Your task to perform on an android device: Search for pizza restaurants on Maps Image 0: 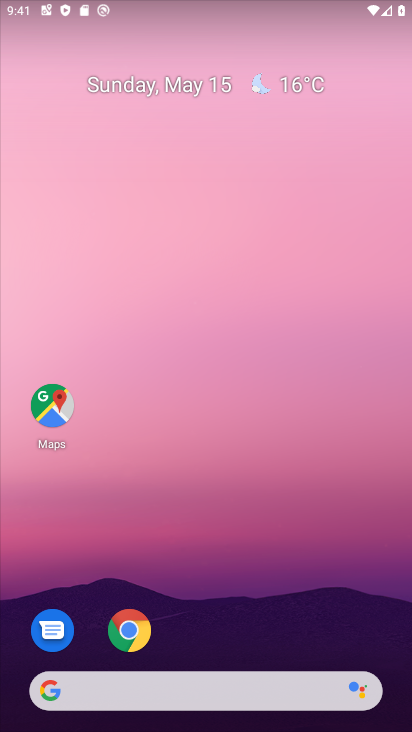
Step 0: click (49, 411)
Your task to perform on an android device: Search for pizza restaurants on Maps Image 1: 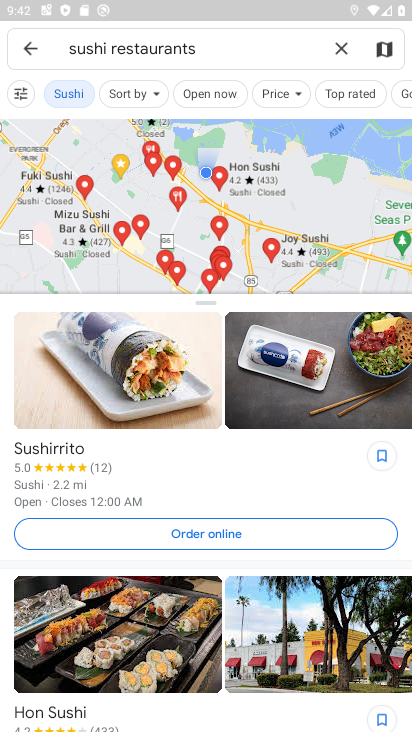
Step 1: click (338, 51)
Your task to perform on an android device: Search for pizza restaurants on Maps Image 2: 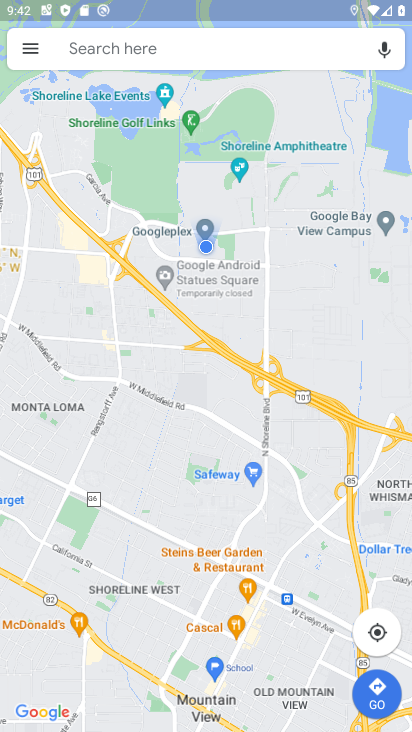
Step 2: click (224, 44)
Your task to perform on an android device: Search for pizza restaurants on Maps Image 3: 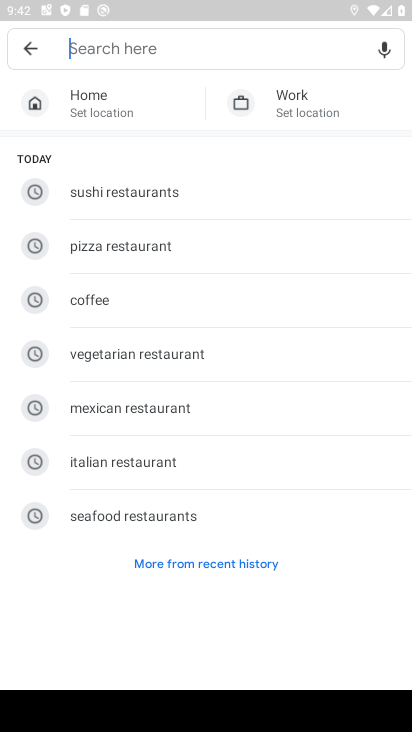
Step 3: click (155, 256)
Your task to perform on an android device: Search for pizza restaurants on Maps Image 4: 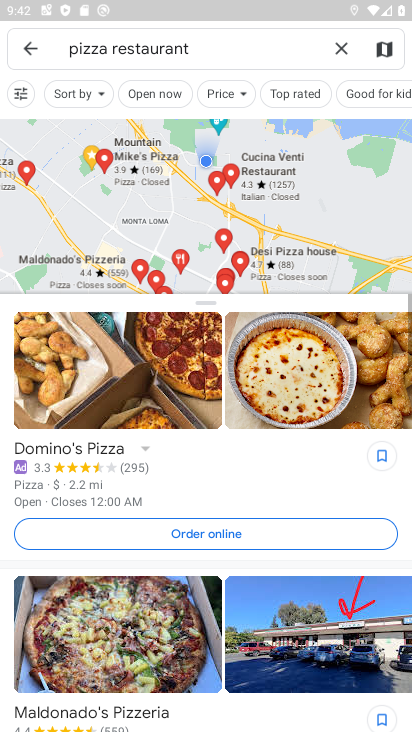
Step 4: task complete